Your task to perform on an android device: Open eBay Image 0: 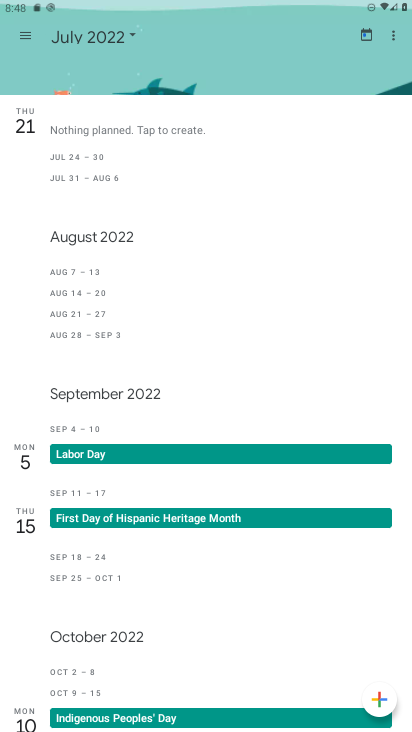
Step 0: press home button
Your task to perform on an android device: Open eBay Image 1: 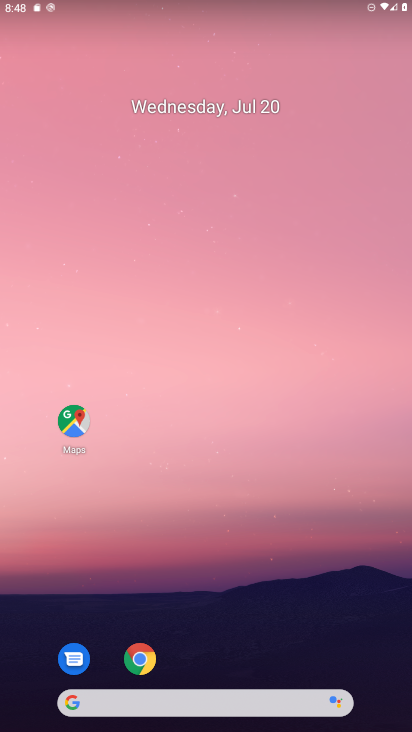
Step 1: drag from (224, 648) to (305, 104)
Your task to perform on an android device: Open eBay Image 2: 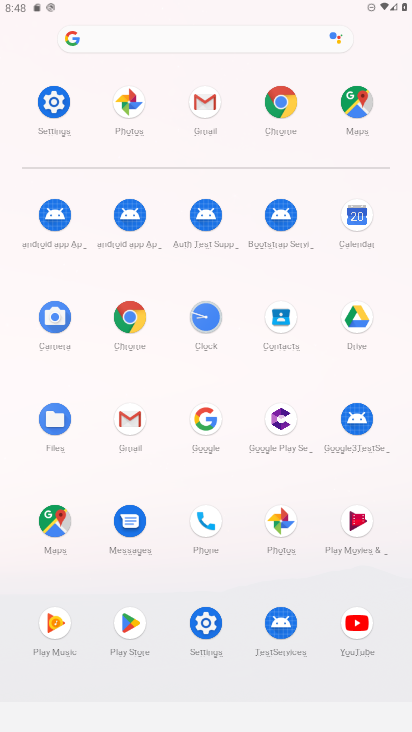
Step 2: click (125, 316)
Your task to perform on an android device: Open eBay Image 3: 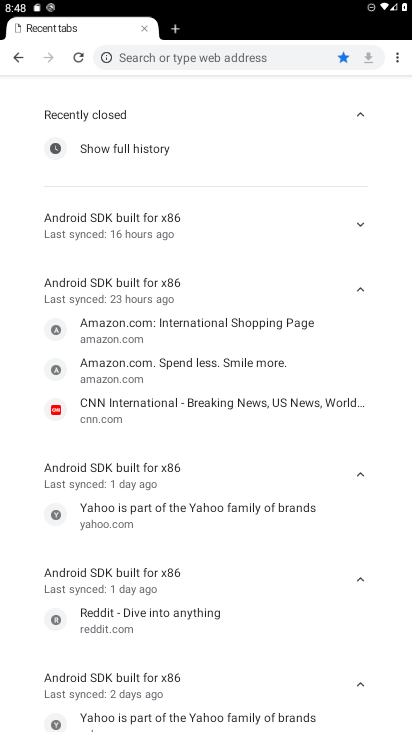
Step 3: click (137, 47)
Your task to perform on an android device: Open eBay Image 4: 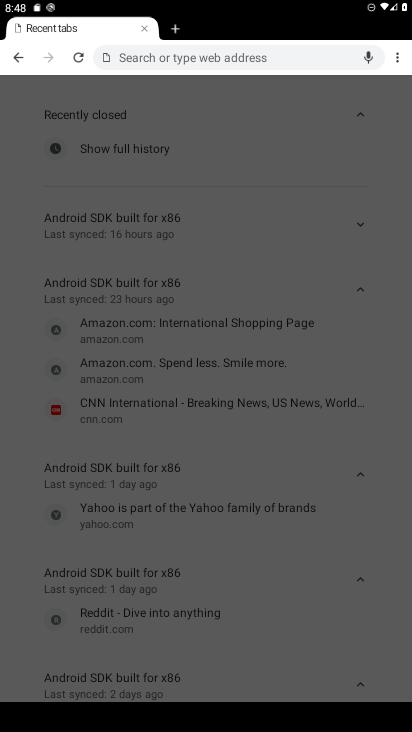
Step 4: type "eBay"
Your task to perform on an android device: Open eBay Image 5: 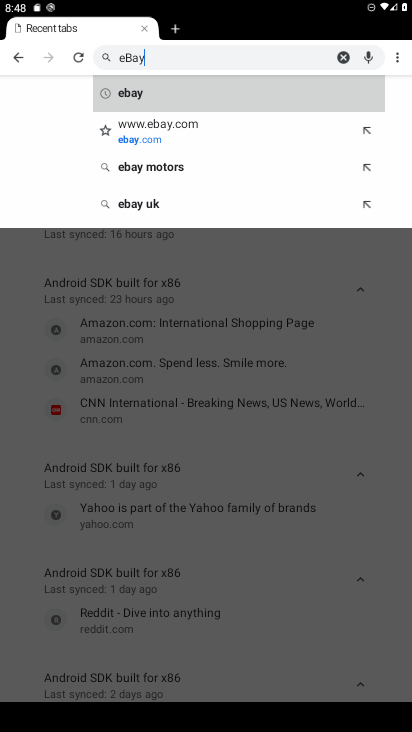
Step 5: click (132, 141)
Your task to perform on an android device: Open eBay Image 6: 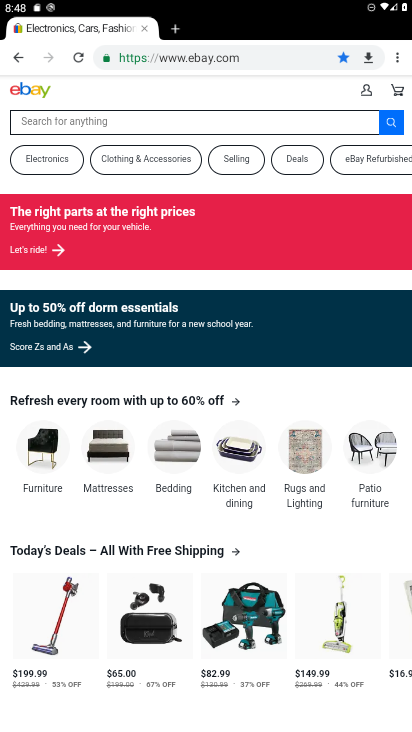
Step 6: task complete